Your task to perform on an android device: clear history in the chrome app Image 0: 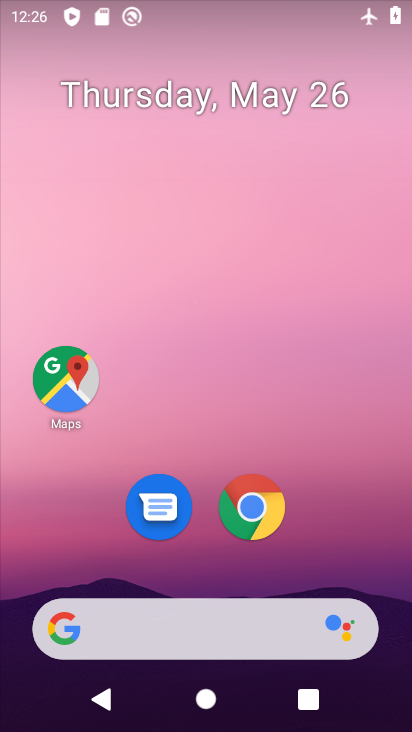
Step 0: click (231, 508)
Your task to perform on an android device: clear history in the chrome app Image 1: 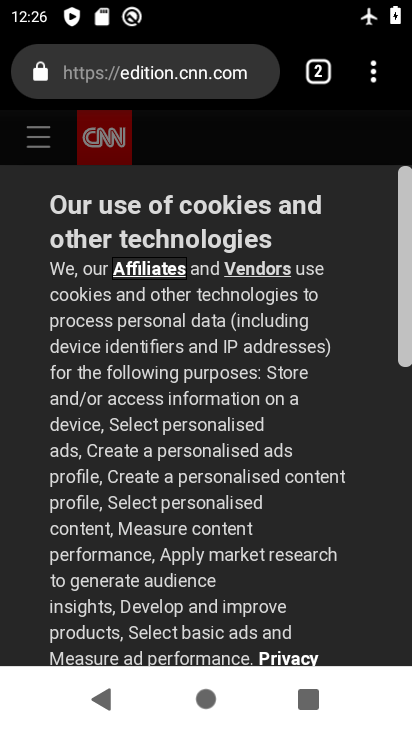
Step 1: drag from (364, 69) to (109, 385)
Your task to perform on an android device: clear history in the chrome app Image 2: 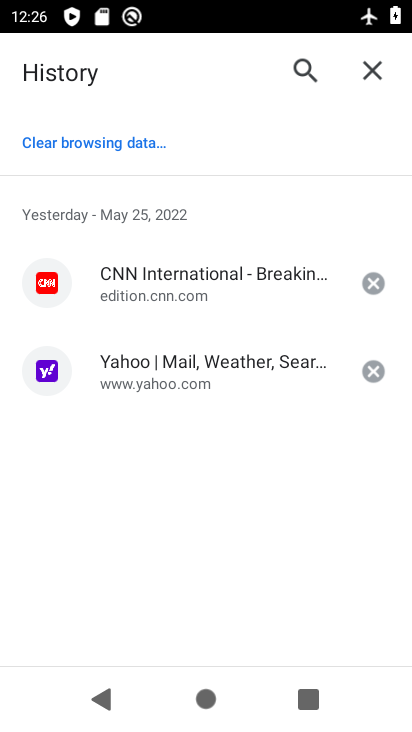
Step 2: click (139, 148)
Your task to perform on an android device: clear history in the chrome app Image 3: 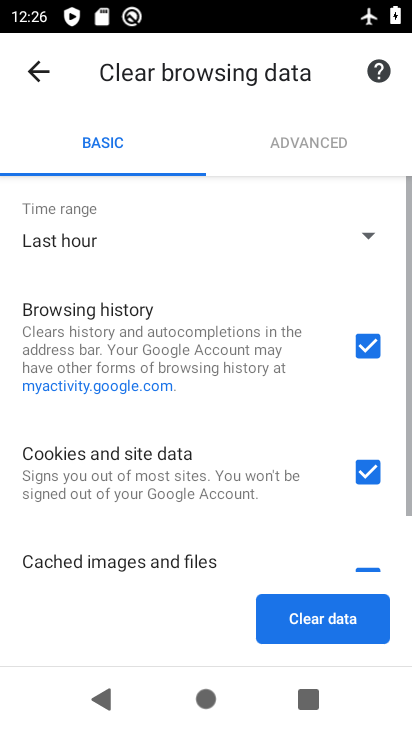
Step 3: drag from (233, 494) to (287, 211)
Your task to perform on an android device: clear history in the chrome app Image 4: 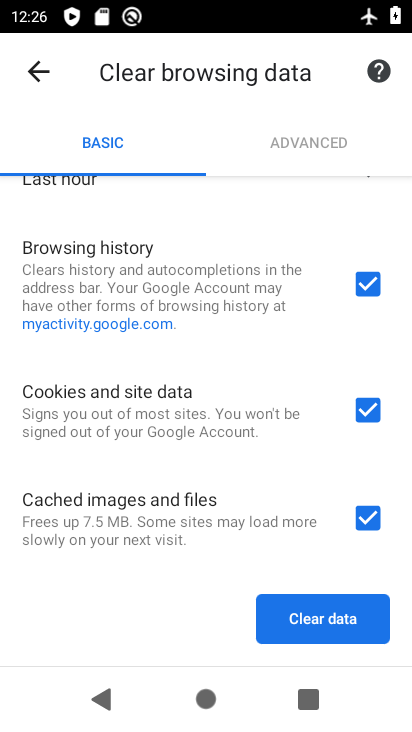
Step 4: click (334, 602)
Your task to perform on an android device: clear history in the chrome app Image 5: 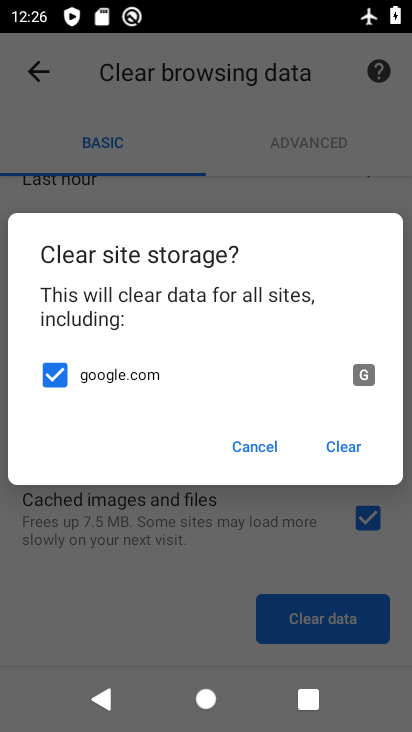
Step 5: click (349, 444)
Your task to perform on an android device: clear history in the chrome app Image 6: 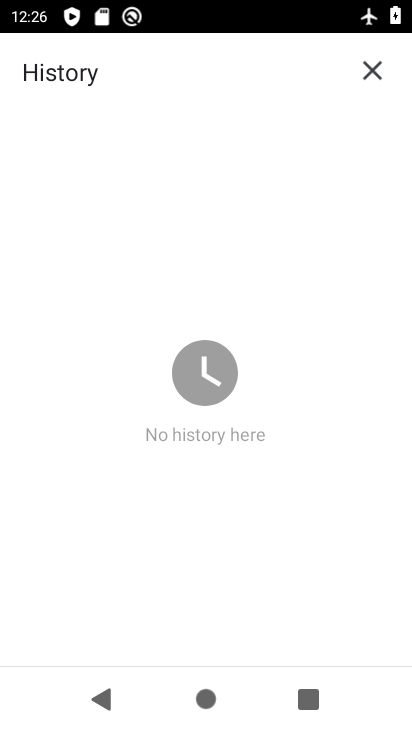
Step 6: task complete